Your task to perform on an android device: delete the emails in spam in the gmail app Image 0: 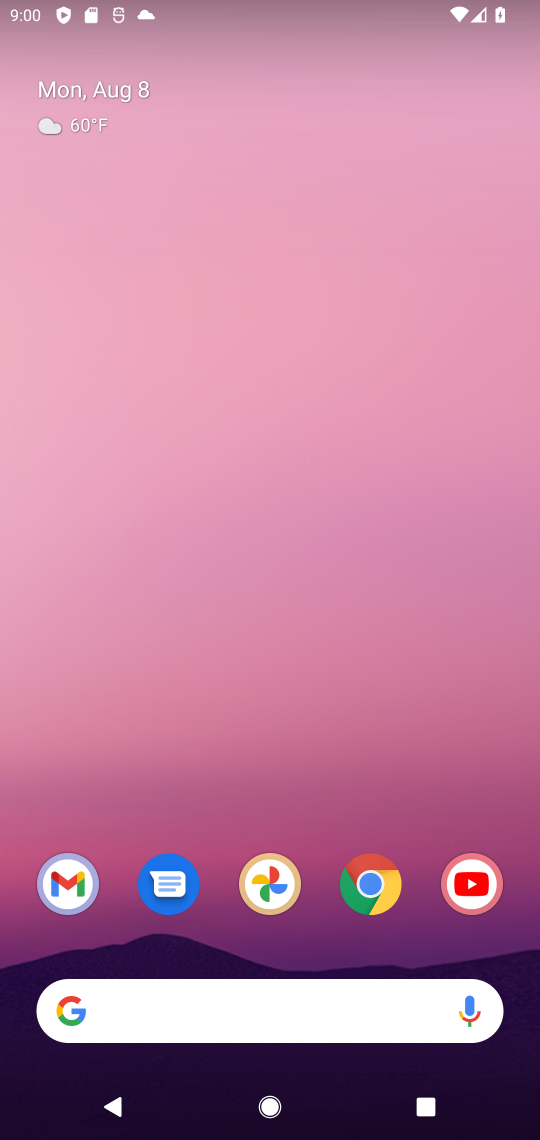
Step 0: click (63, 887)
Your task to perform on an android device: delete the emails in spam in the gmail app Image 1: 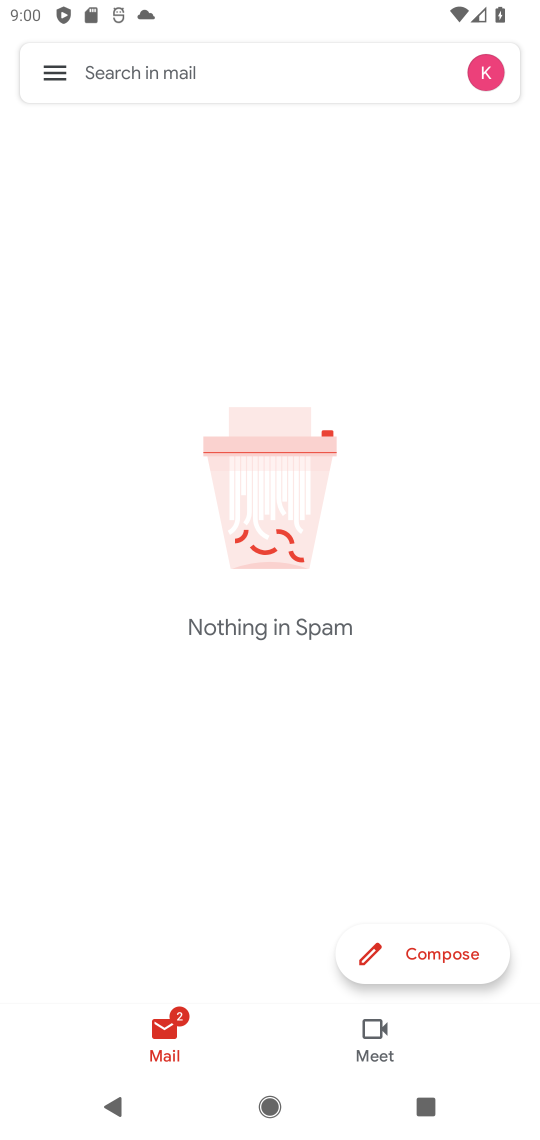
Step 1: task complete